Your task to perform on an android device: Turn off the flashlight Image 0: 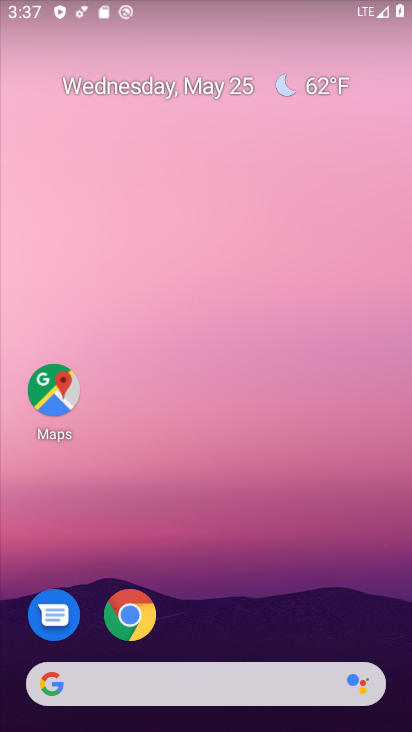
Step 0: drag from (268, 7) to (158, 544)
Your task to perform on an android device: Turn off the flashlight Image 1: 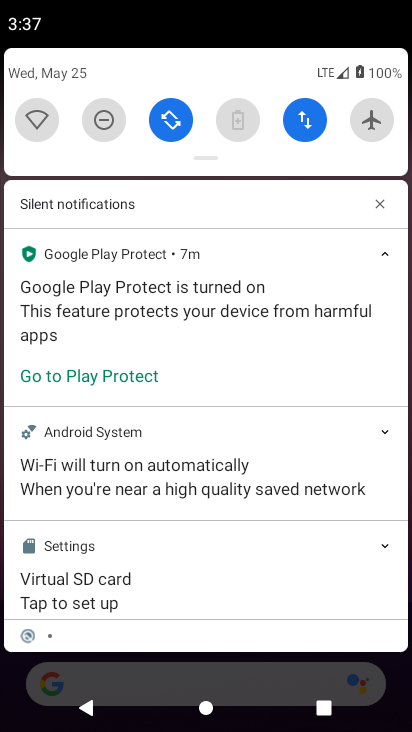
Step 1: task complete